Your task to perform on an android device: Open calendar and show me the fourth week of next month Image 0: 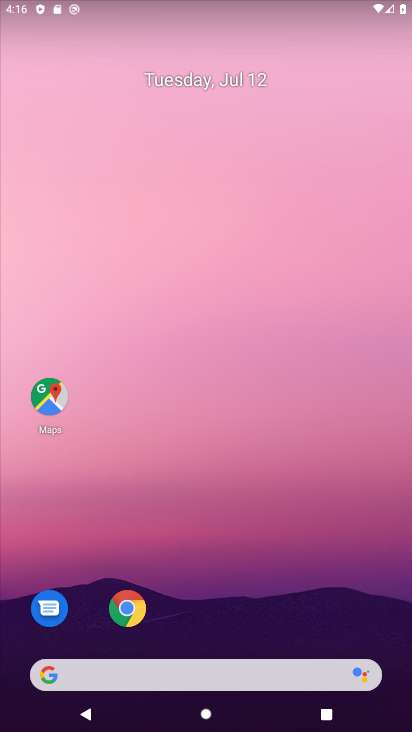
Step 0: click (166, 83)
Your task to perform on an android device: Open calendar and show me the fourth week of next month Image 1: 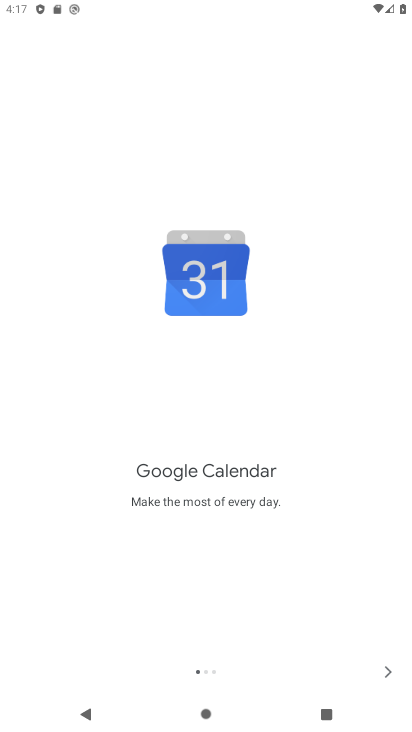
Step 1: click (382, 666)
Your task to perform on an android device: Open calendar and show me the fourth week of next month Image 2: 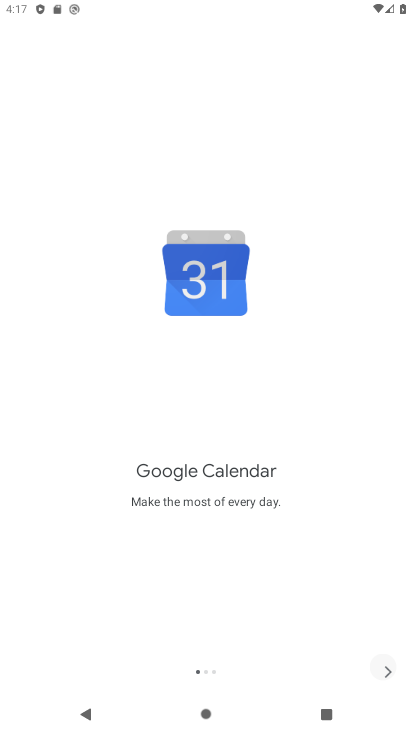
Step 2: click (382, 666)
Your task to perform on an android device: Open calendar and show me the fourth week of next month Image 3: 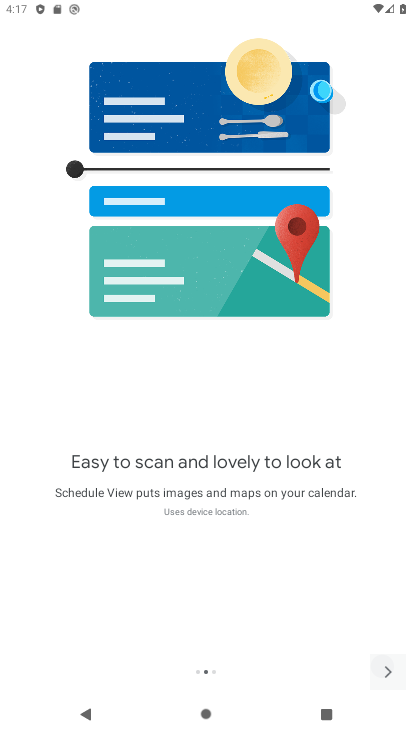
Step 3: click (382, 666)
Your task to perform on an android device: Open calendar and show me the fourth week of next month Image 4: 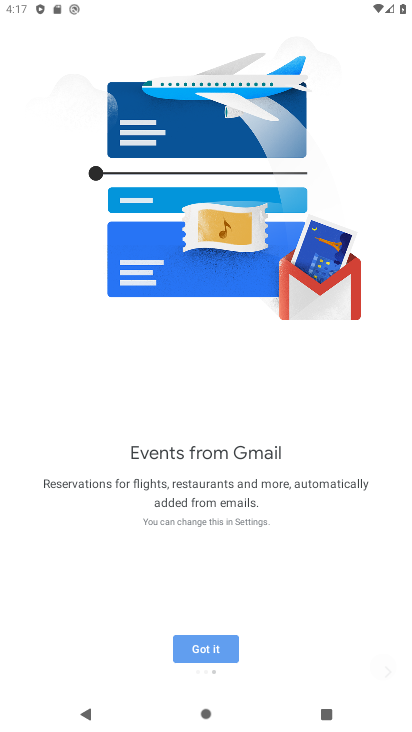
Step 4: click (382, 666)
Your task to perform on an android device: Open calendar and show me the fourth week of next month Image 5: 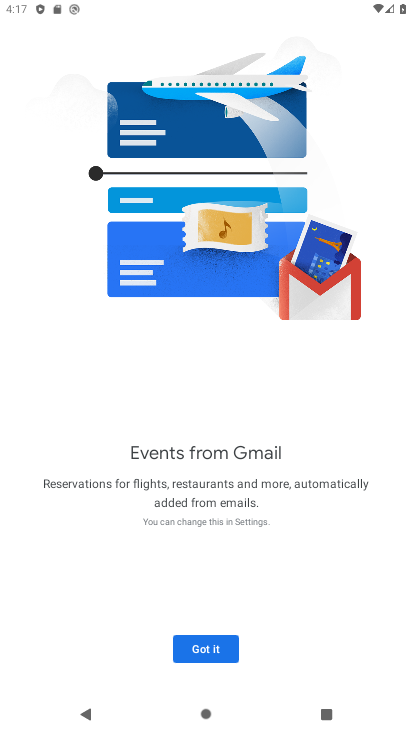
Step 5: click (382, 666)
Your task to perform on an android device: Open calendar and show me the fourth week of next month Image 6: 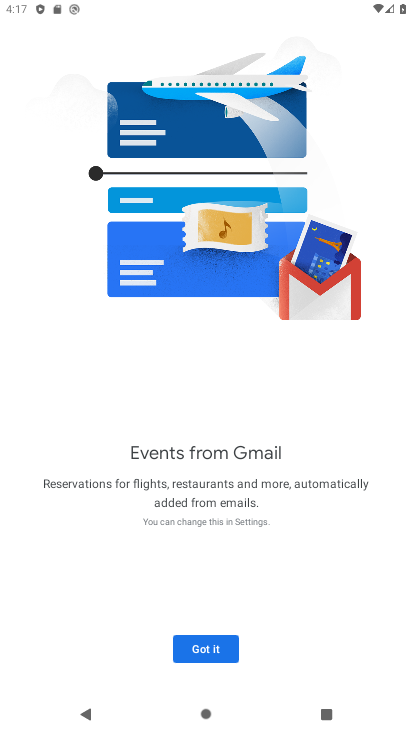
Step 6: click (382, 666)
Your task to perform on an android device: Open calendar and show me the fourth week of next month Image 7: 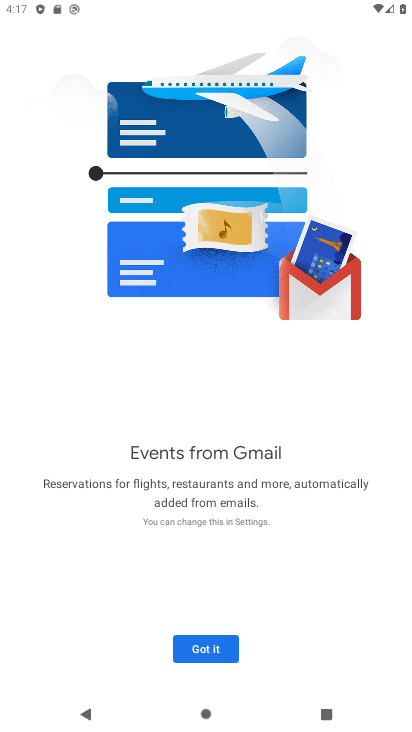
Step 7: click (219, 651)
Your task to perform on an android device: Open calendar and show me the fourth week of next month Image 8: 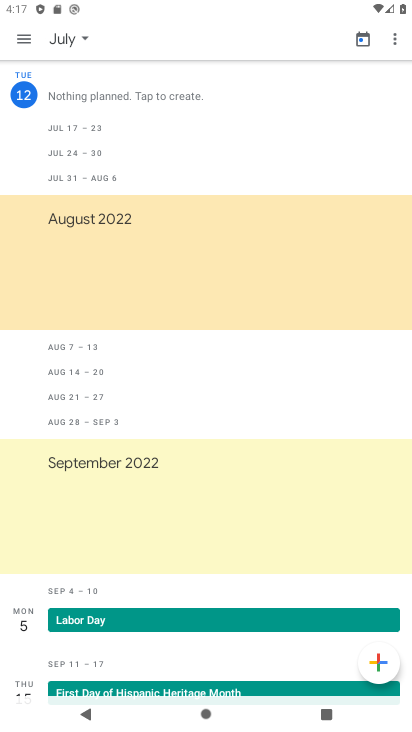
Step 8: click (64, 37)
Your task to perform on an android device: Open calendar and show me the fourth week of next month Image 9: 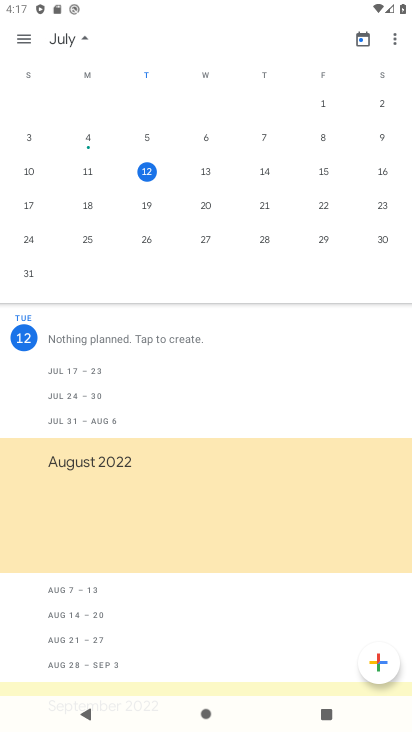
Step 9: drag from (395, 271) to (33, 277)
Your task to perform on an android device: Open calendar and show me the fourth week of next month Image 10: 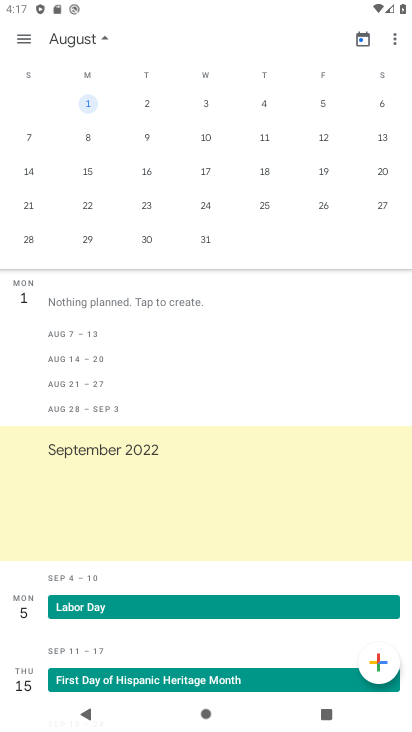
Step 10: click (268, 209)
Your task to perform on an android device: Open calendar and show me the fourth week of next month Image 11: 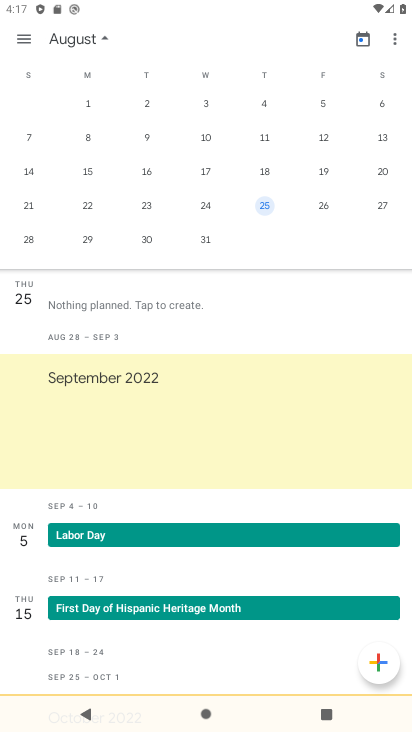
Step 11: task complete